Your task to perform on an android device: Open Android settings Image 0: 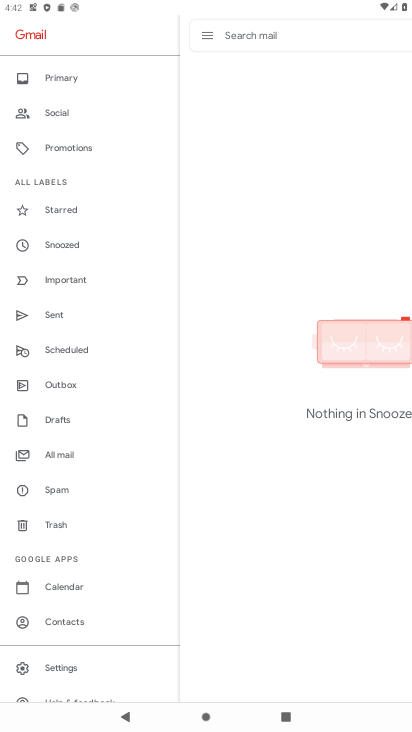
Step 0: press home button
Your task to perform on an android device: Open Android settings Image 1: 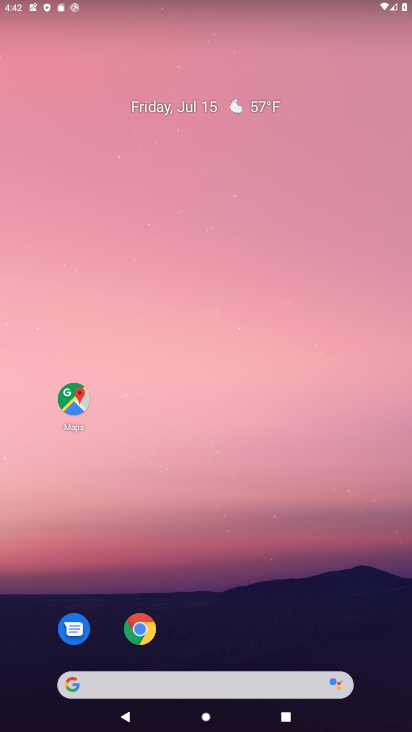
Step 1: drag from (237, 610) to (404, 87)
Your task to perform on an android device: Open Android settings Image 2: 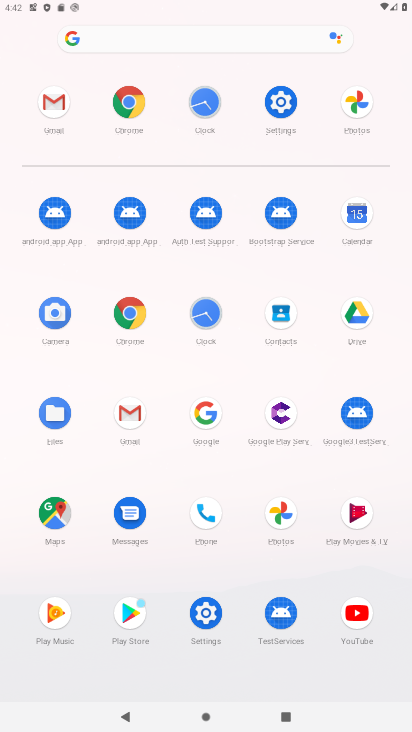
Step 2: click (286, 108)
Your task to perform on an android device: Open Android settings Image 3: 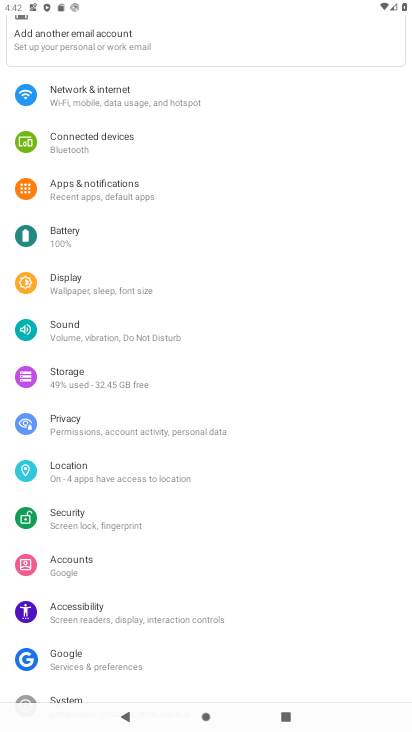
Step 3: task complete